Your task to perform on an android device: Search for vegetarian restaurants on Maps Image 0: 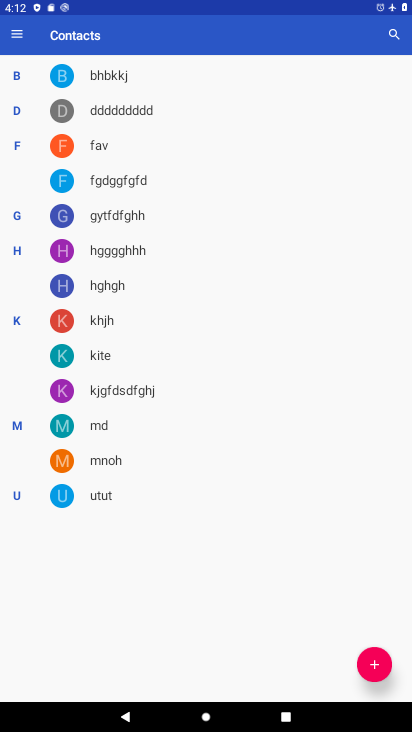
Step 0: press home button
Your task to perform on an android device: Search for vegetarian restaurants on Maps Image 1: 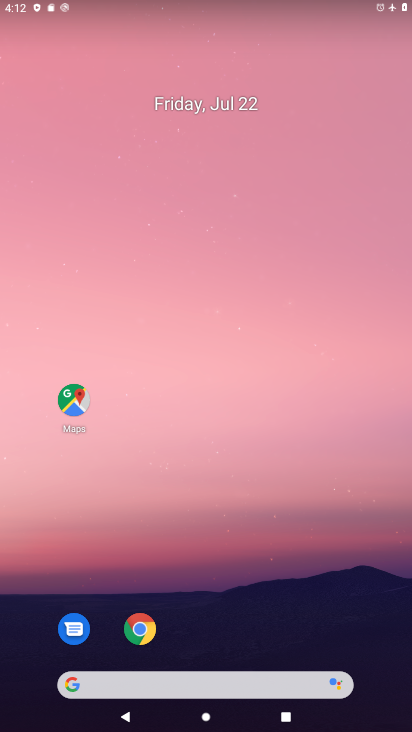
Step 1: drag from (234, 600) to (199, 123)
Your task to perform on an android device: Search for vegetarian restaurants on Maps Image 2: 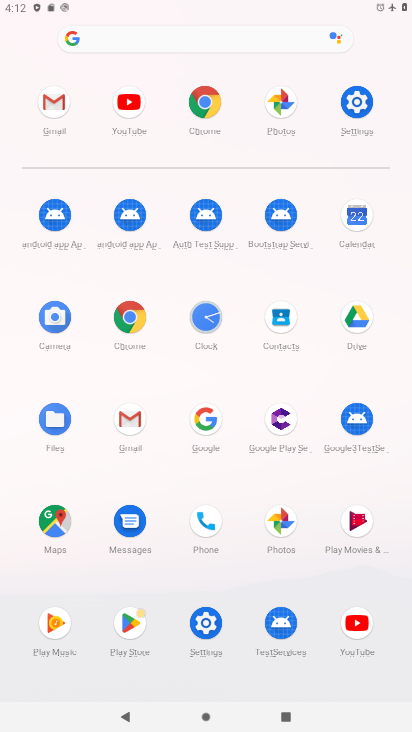
Step 2: click (41, 519)
Your task to perform on an android device: Search for vegetarian restaurants on Maps Image 3: 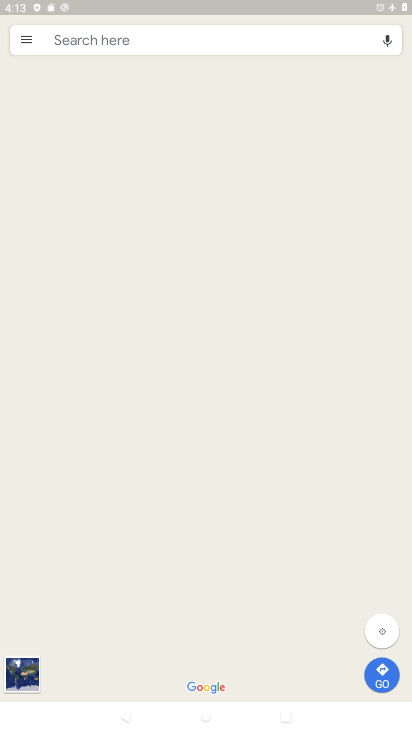
Step 3: click (231, 41)
Your task to perform on an android device: Search for vegetarian restaurants on Maps Image 4: 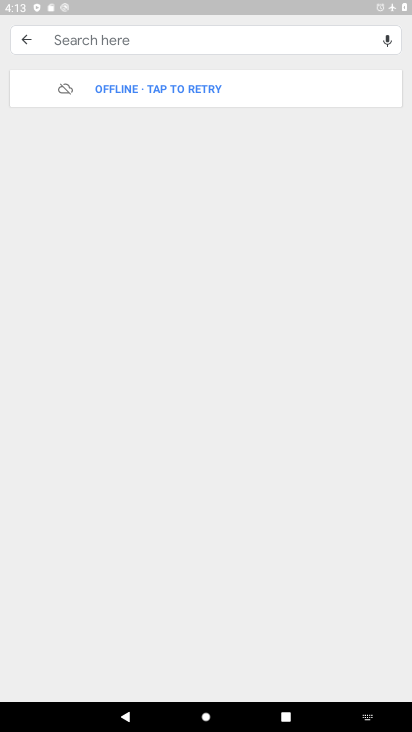
Step 4: type "vegetarian restaurants"
Your task to perform on an android device: Search for vegetarian restaurants on Maps Image 5: 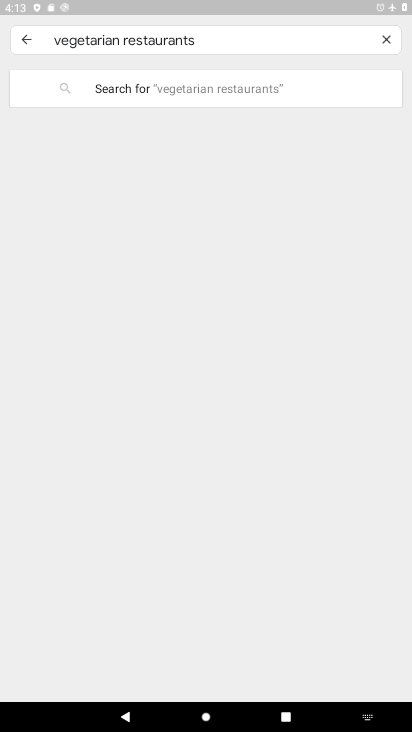
Step 5: press enter
Your task to perform on an android device: Search for vegetarian restaurants on Maps Image 6: 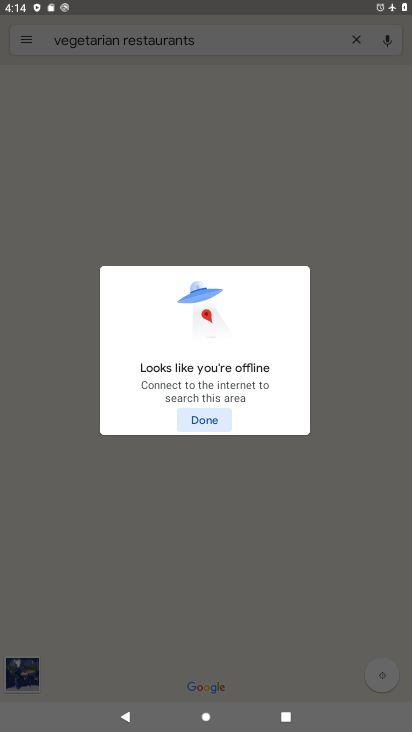
Step 6: task complete